Your task to perform on an android device: search for starred emails in the gmail app Image 0: 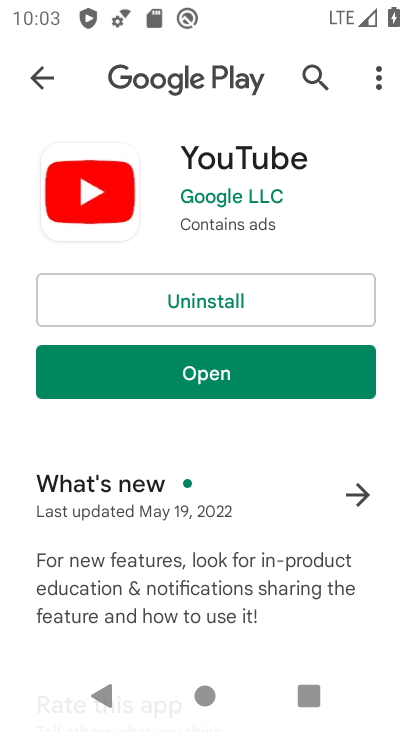
Step 0: press home button
Your task to perform on an android device: search for starred emails in the gmail app Image 1: 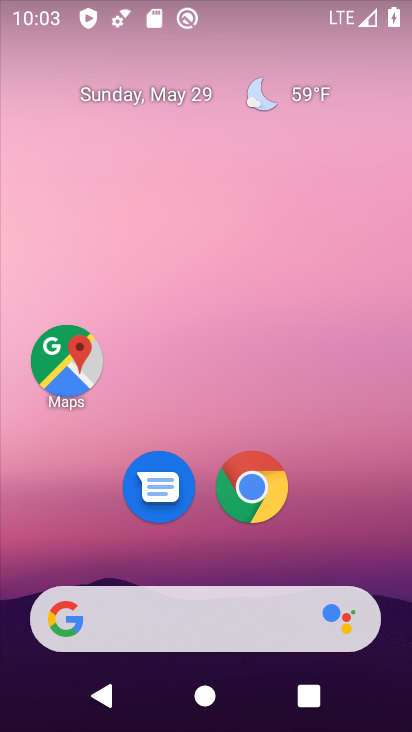
Step 1: drag from (392, 560) to (397, 33)
Your task to perform on an android device: search for starred emails in the gmail app Image 2: 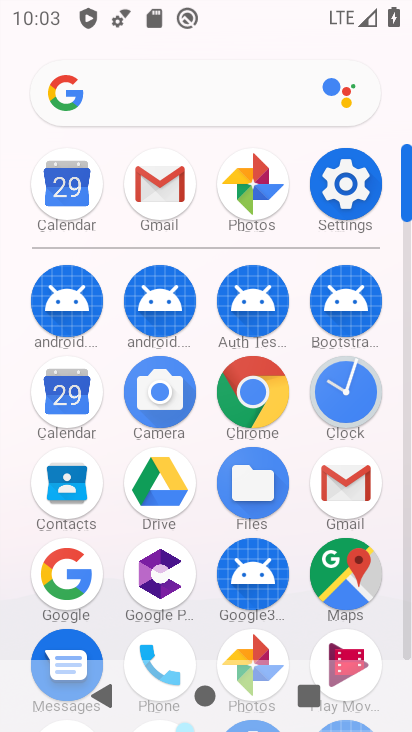
Step 2: click (336, 469)
Your task to perform on an android device: search for starred emails in the gmail app Image 3: 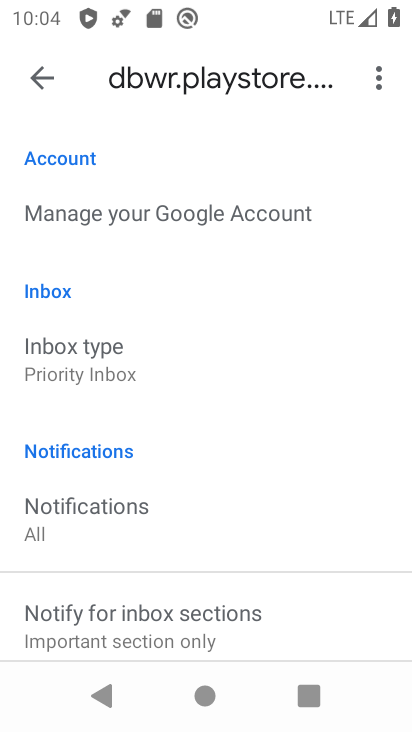
Step 3: click (26, 72)
Your task to perform on an android device: search for starred emails in the gmail app Image 4: 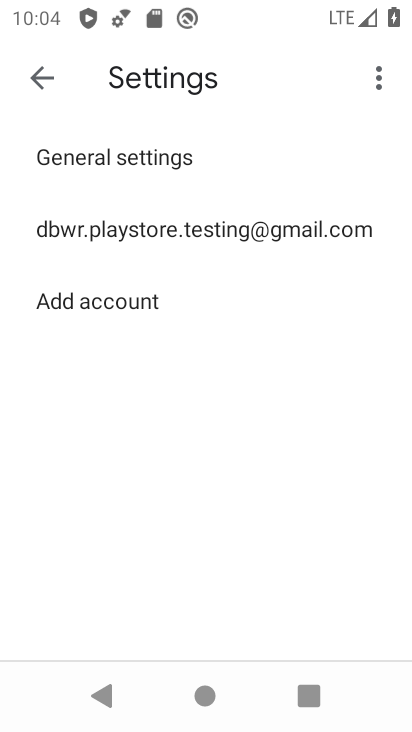
Step 4: click (43, 86)
Your task to perform on an android device: search for starred emails in the gmail app Image 5: 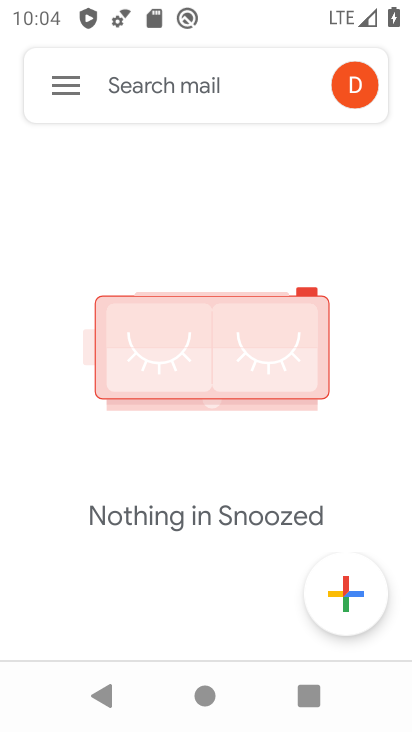
Step 5: click (53, 74)
Your task to perform on an android device: search for starred emails in the gmail app Image 6: 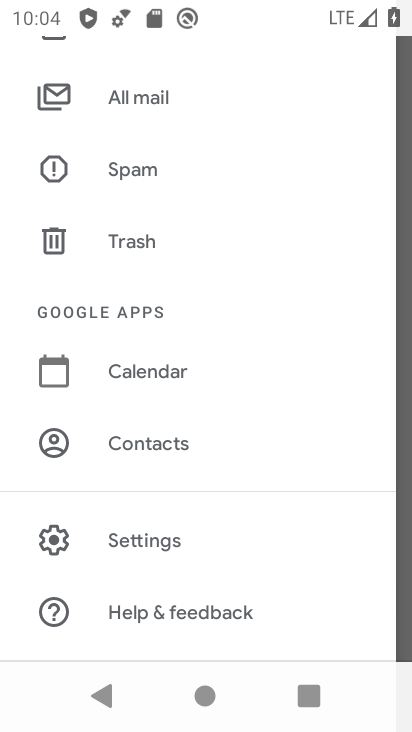
Step 6: drag from (266, 172) to (279, 564)
Your task to perform on an android device: search for starred emails in the gmail app Image 7: 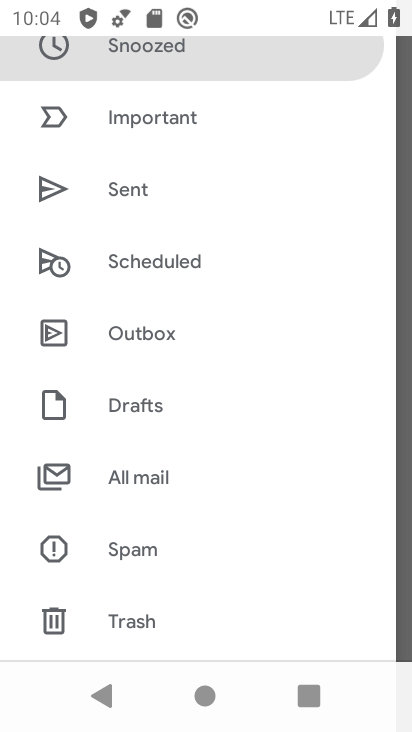
Step 7: drag from (285, 245) to (291, 695)
Your task to perform on an android device: search for starred emails in the gmail app Image 8: 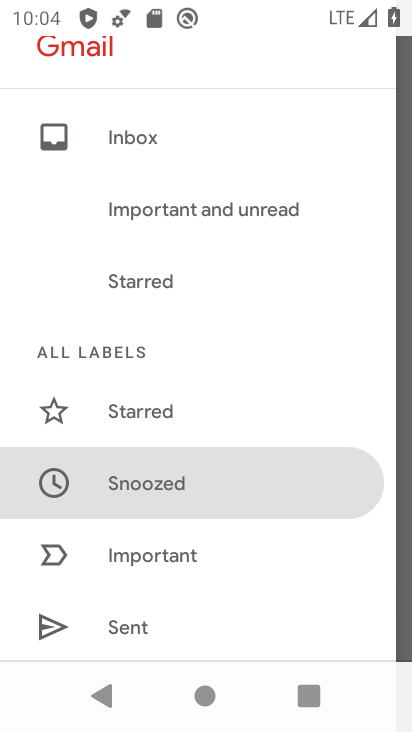
Step 8: click (160, 279)
Your task to perform on an android device: search for starred emails in the gmail app Image 9: 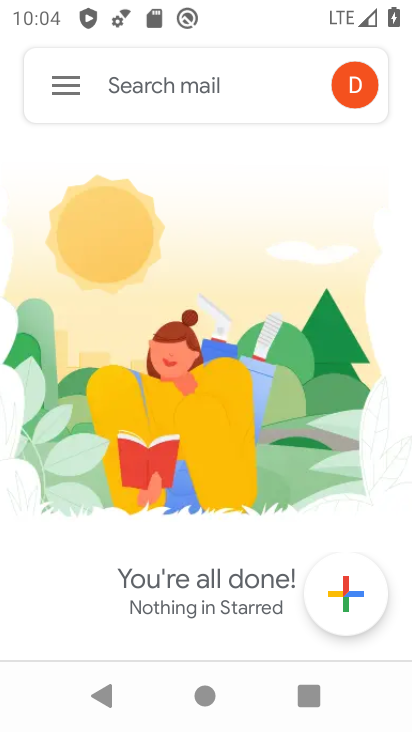
Step 9: task complete